Your task to perform on an android device: Search for seafood restaurants on Google Maps Image 0: 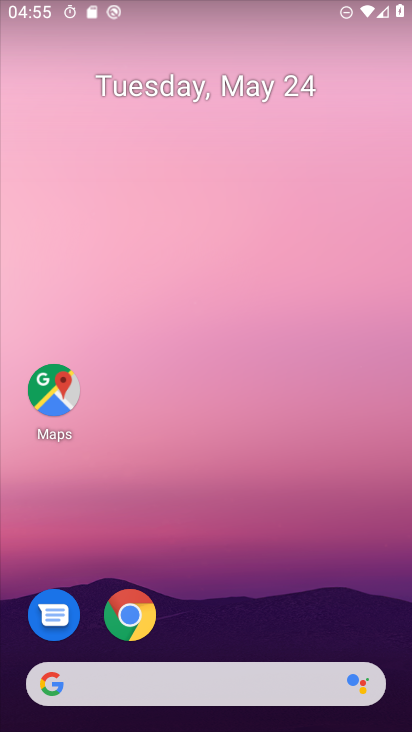
Step 0: click (56, 377)
Your task to perform on an android device: Search for seafood restaurants on Google Maps Image 1: 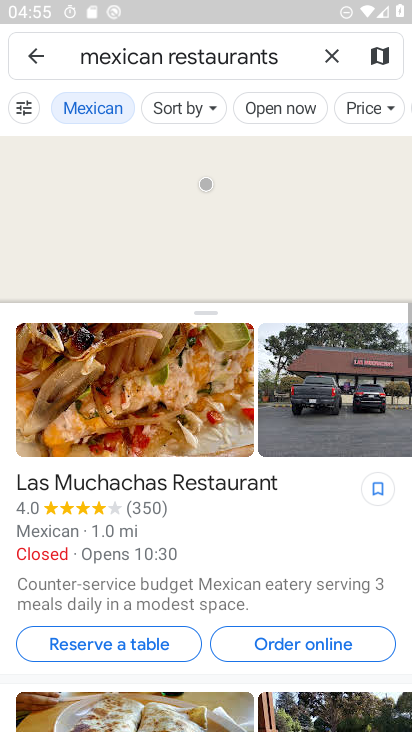
Step 1: click (330, 49)
Your task to perform on an android device: Search for seafood restaurants on Google Maps Image 2: 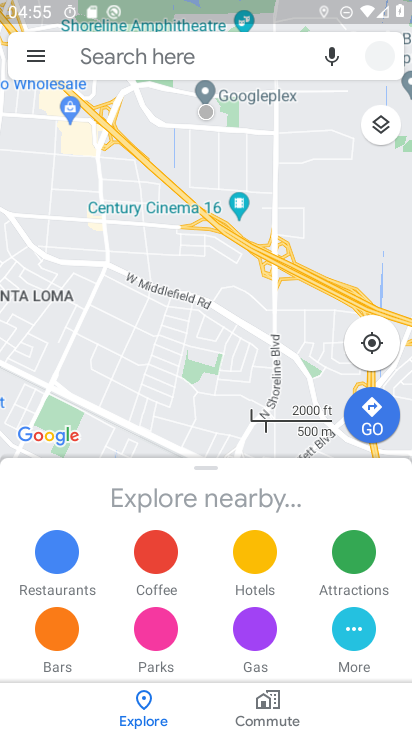
Step 2: click (123, 59)
Your task to perform on an android device: Search for seafood restaurants on Google Maps Image 3: 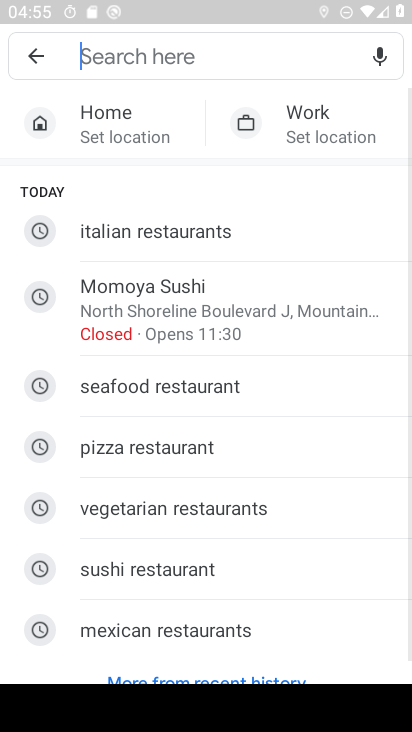
Step 3: click (137, 390)
Your task to perform on an android device: Search for seafood restaurants on Google Maps Image 4: 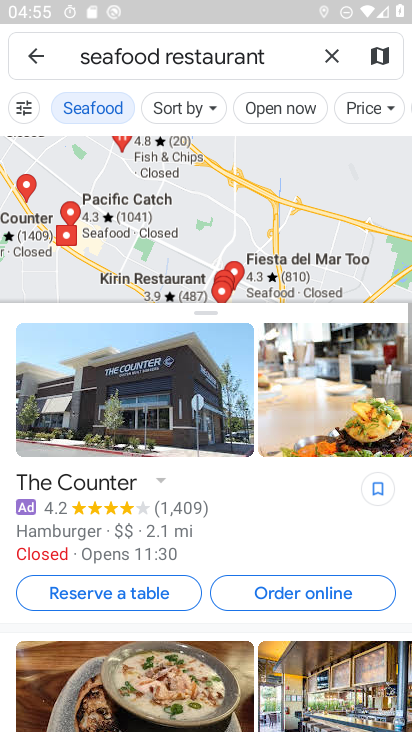
Step 4: task complete